Your task to perform on an android device: turn on javascript in the chrome app Image 0: 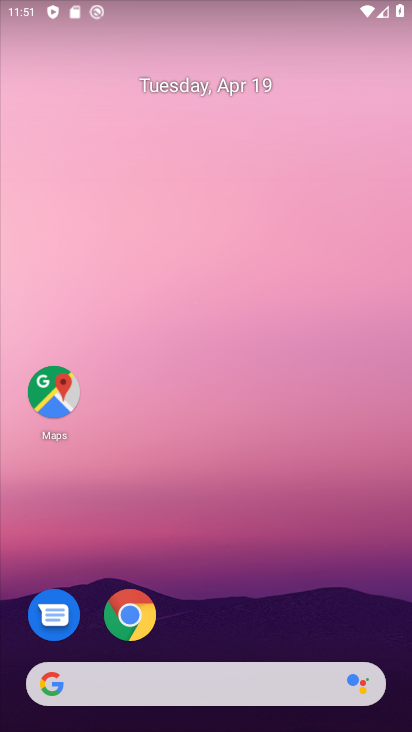
Step 0: click (130, 614)
Your task to perform on an android device: turn on javascript in the chrome app Image 1: 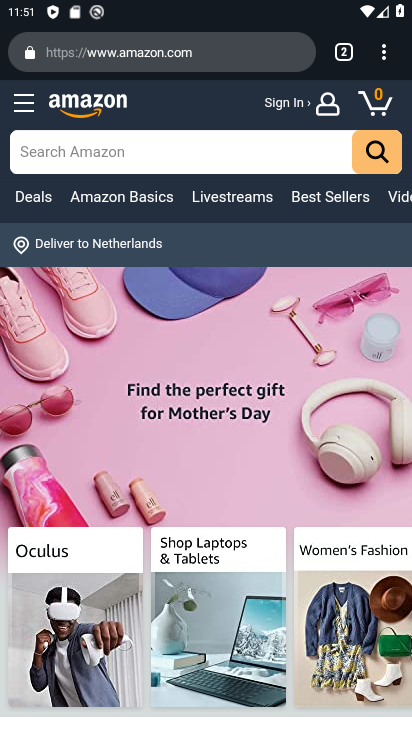
Step 1: click (381, 48)
Your task to perform on an android device: turn on javascript in the chrome app Image 2: 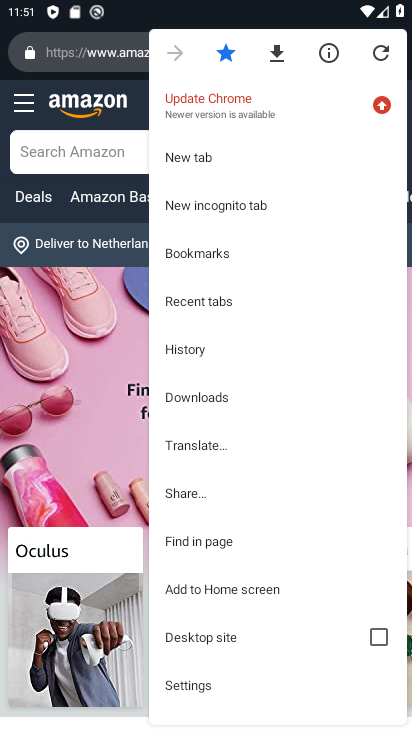
Step 2: click (230, 681)
Your task to perform on an android device: turn on javascript in the chrome app Image 3: 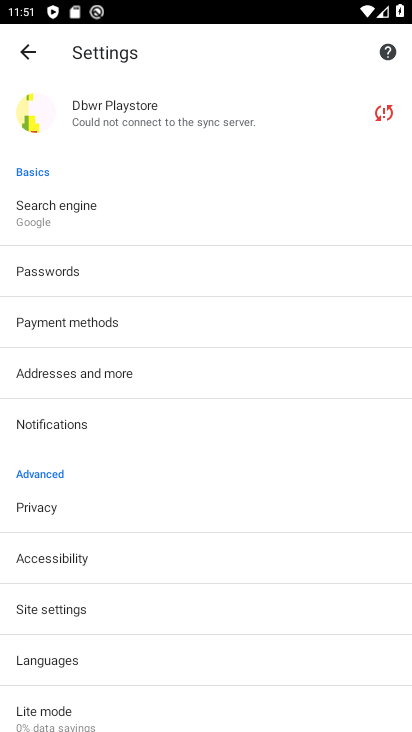
Step 3: click (75, 611)
Your task to perform on an android device: turn on javascript in the chrome app Image 4: 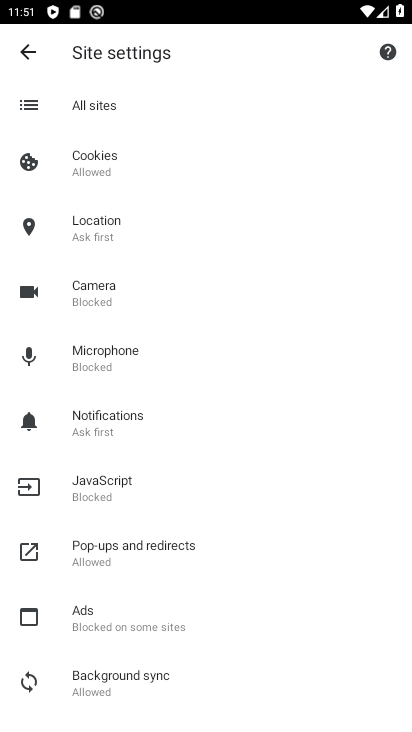
Step 4: click (131, 494)
Your task to perform on an android device: turn on javascript in the chrome app Image 5: 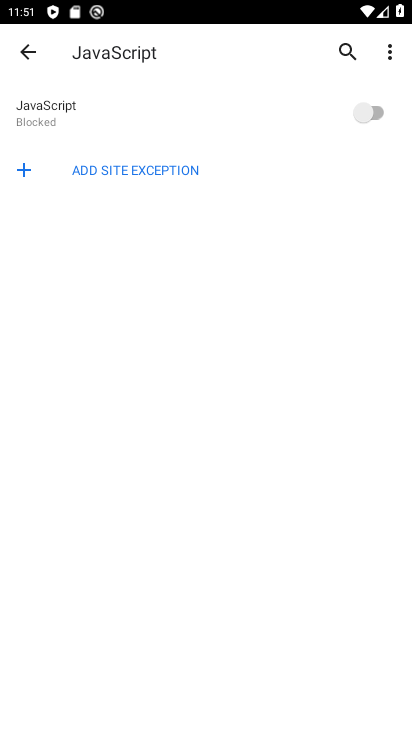
Step 5: click (369, 110)
Your task to perform on an android device: turn on javascript in the chrome app Image 6: 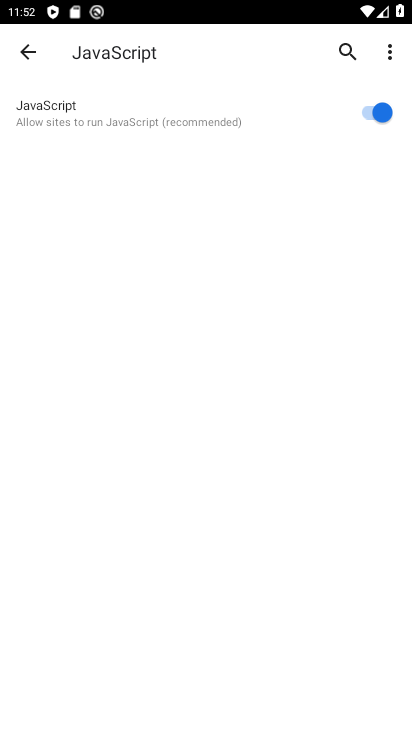
Step 6: task complete